Your task to perform on an android device: Open internet settings Image 0: 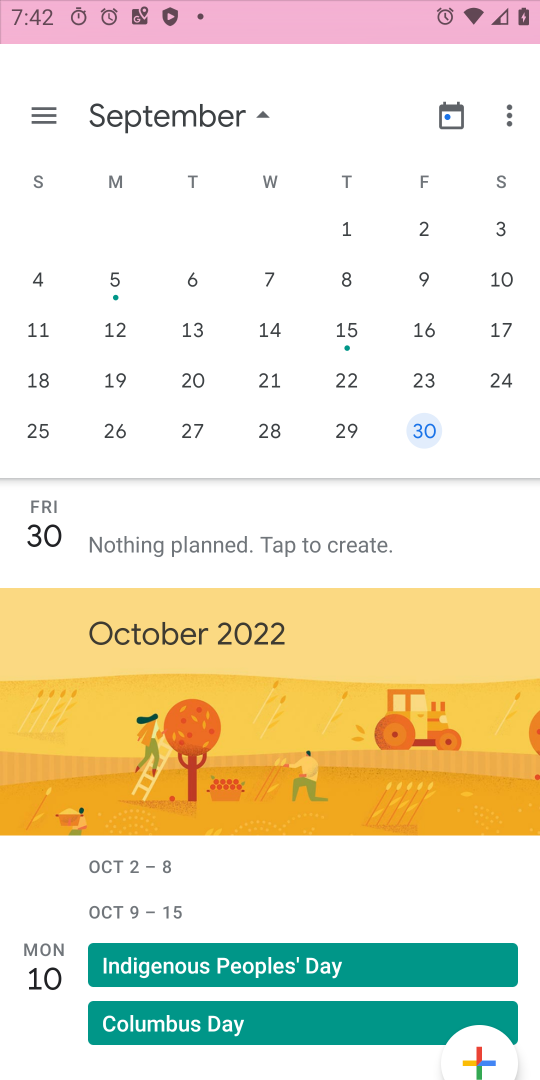
Step 0: press home button
Your task to perform on an android device: Open internet settings Image 1: 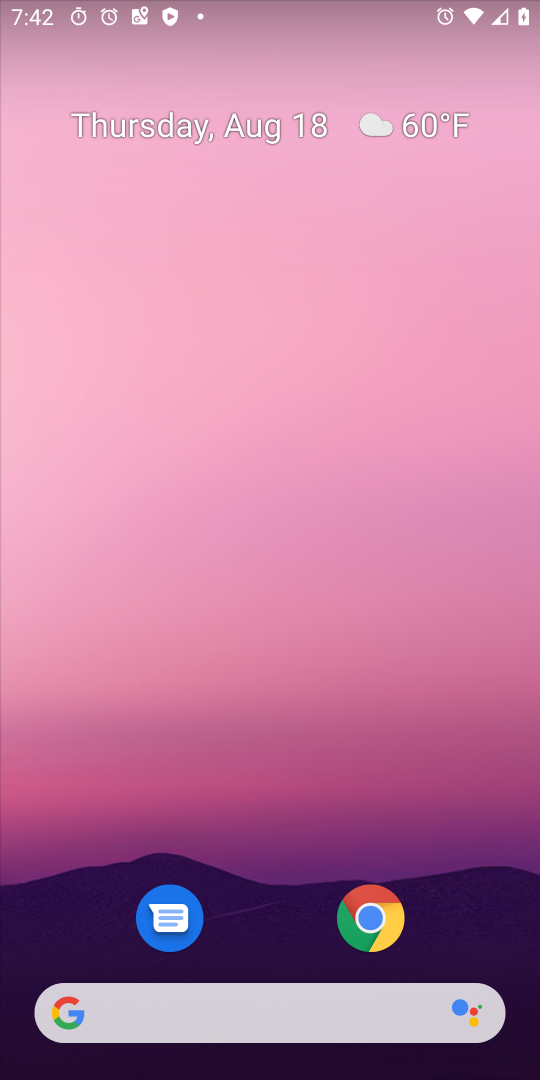
Step 1: drag from (253, 821) to (275, 52)
Your task to perform on an android device: Open internet settings Image 2: 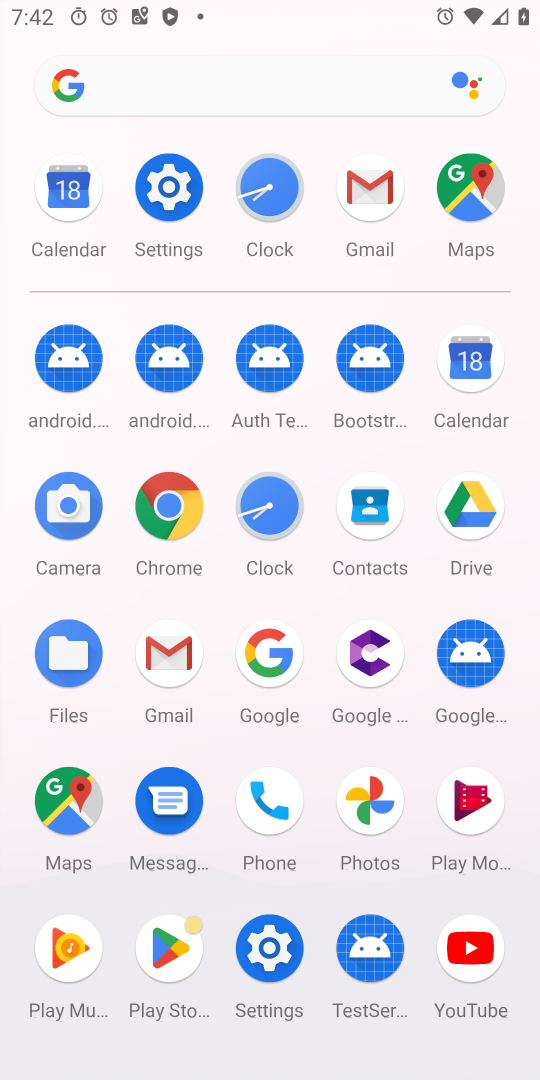
Step 2: click (168, 189)
Your task to perform on an android device: Open internet settings Image 3: 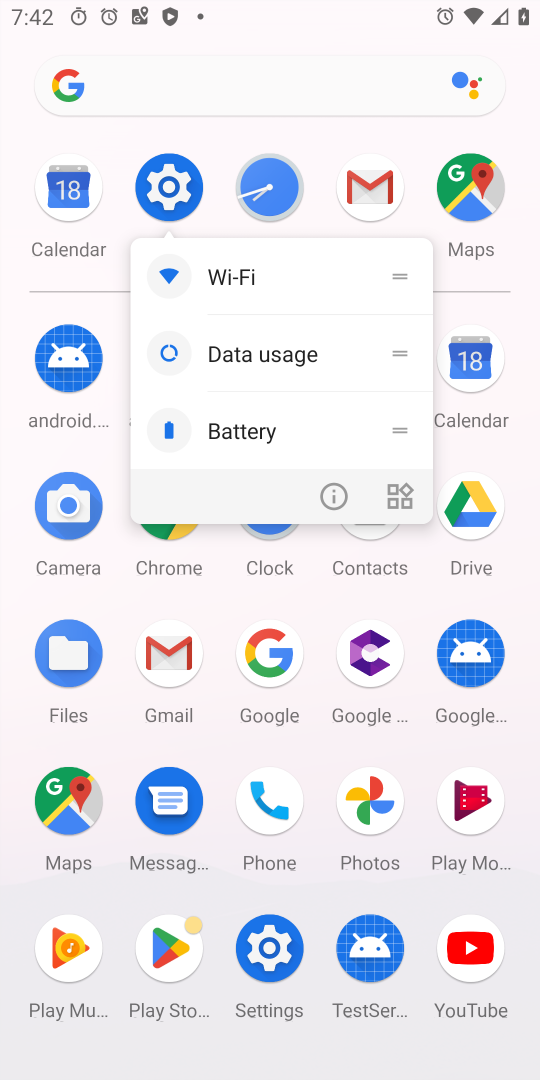
Step 3: click (239, 193)
Your task to perform on an android device: Open internet settings Image 4: 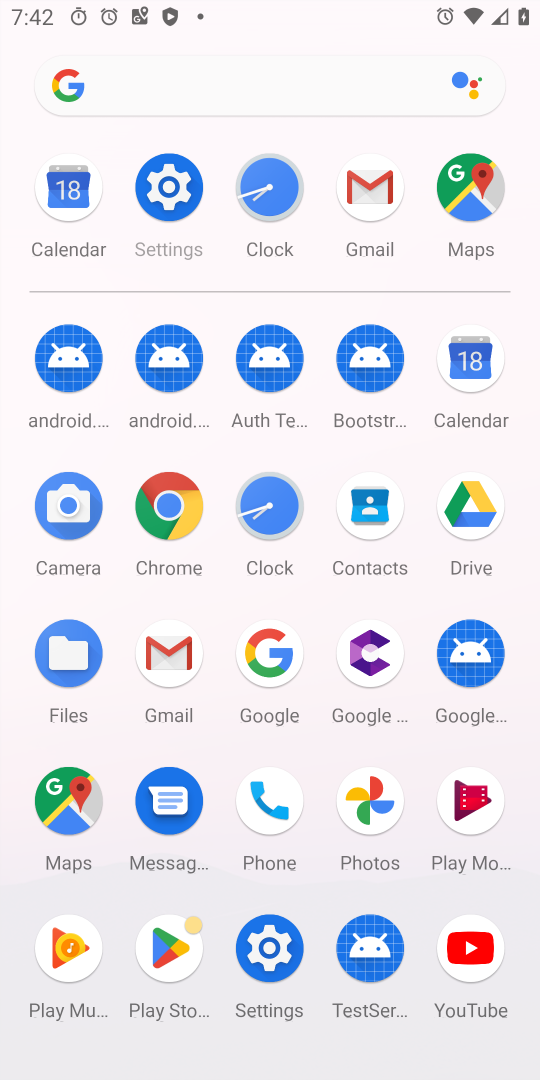
Step 4: click (133, 176)
Your task to perform on an android device: Open internet settings Image 5: 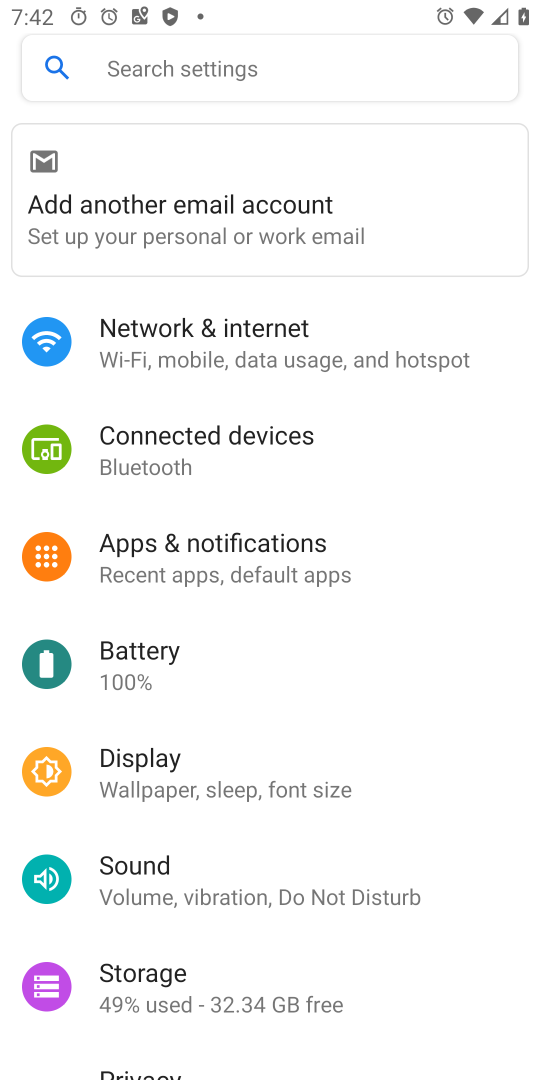
Step 5: click (201, 358)
Your task to perform on an android device: Open internet settings Image 6: 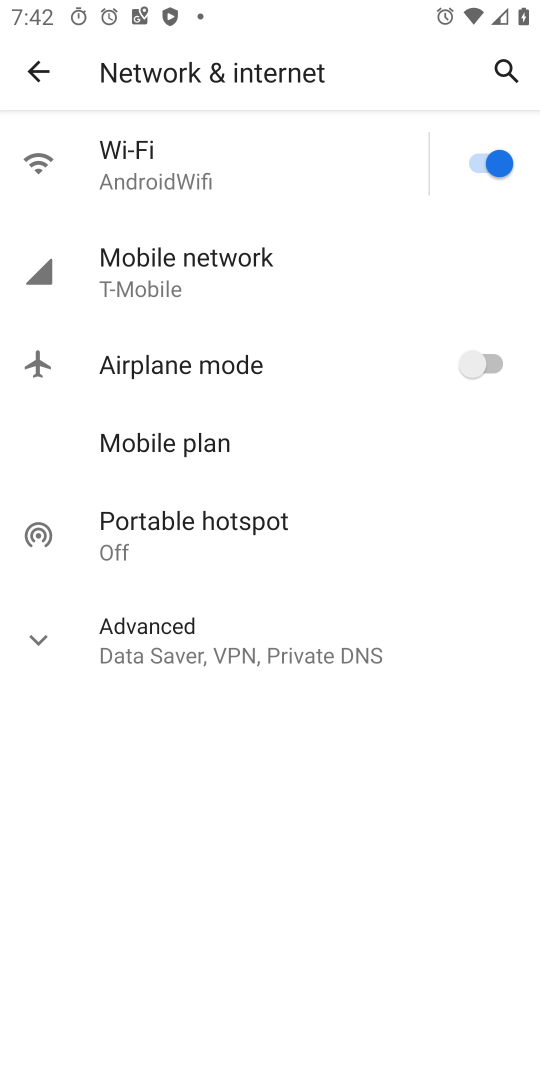
Step 6: task complete